Your task to perform on an android device: change the clock display to analog Image 0: 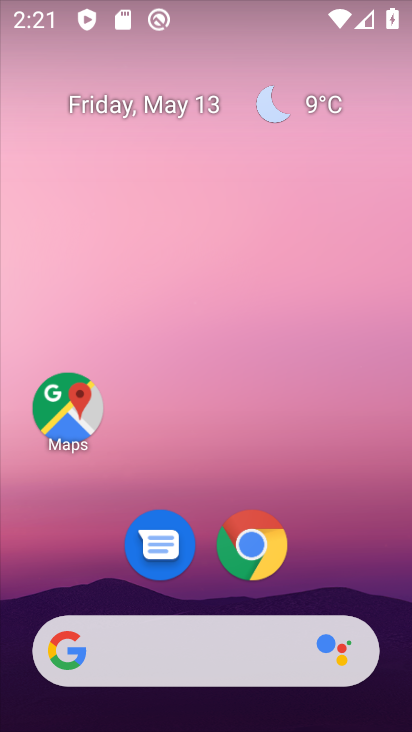
Step 0: drag from (311, 449) to (329, 100)
Your task to perform on an android device: change the clock display to analog Image 1: 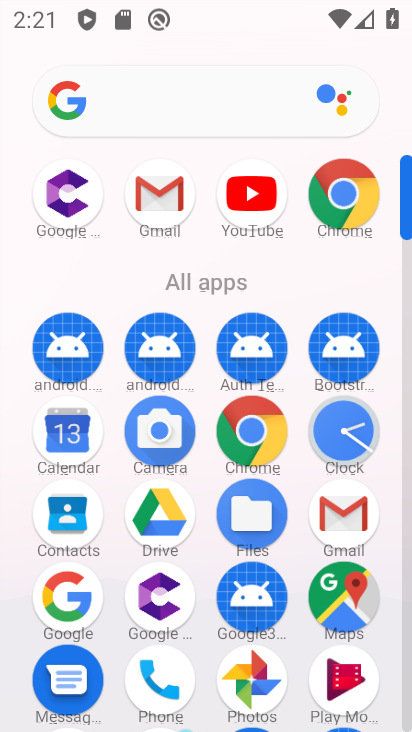
Step 1: click (337, 436)
Your task to perform on an android device: change the clock display to analog Image 2: 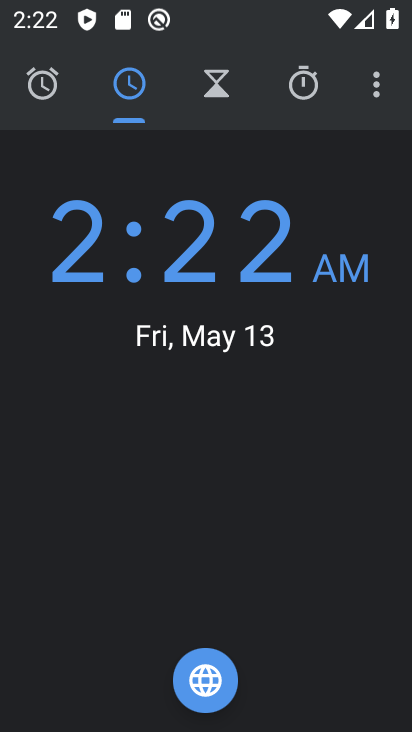
Step 2: click (375, 90)
Your task to perform on an android device: change the clock display to analog Image 3: 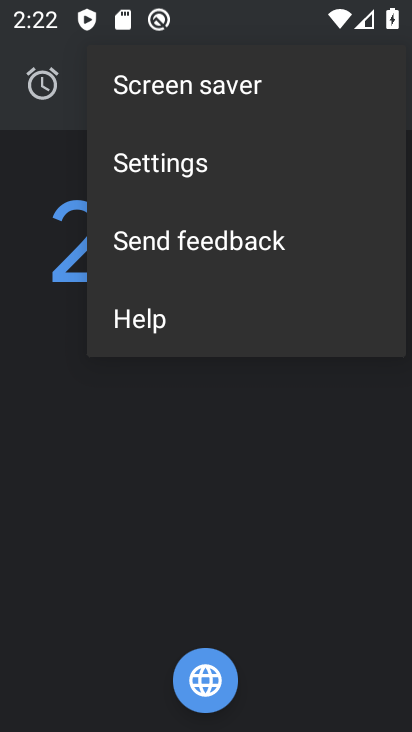
Step 3: click (167, 165)
Your task to perform on an android device: change the clock display to analog Image 4: 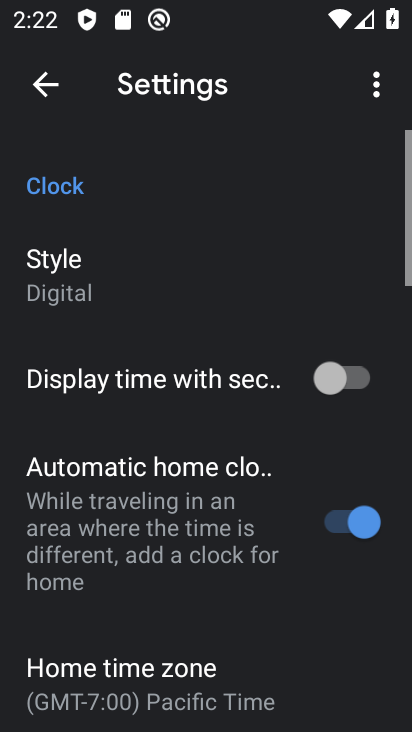
Step 4: click (42, 279)
Your task to perform on an android device: change the clock display to analog Image 5: 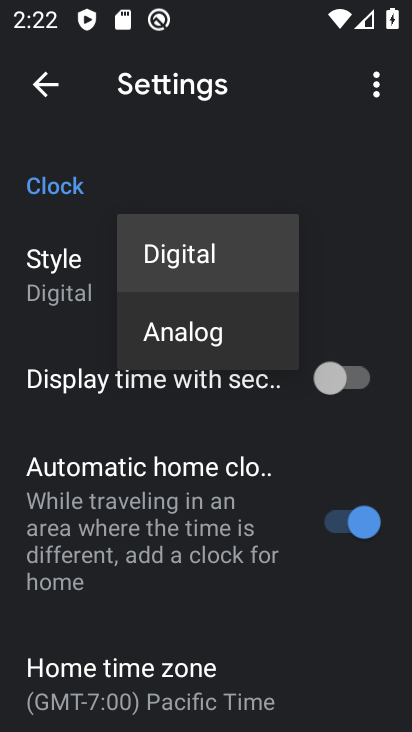
Step 5: click (200, 322)
Your task to perform on an android device: change the clock display to analog Image 6: 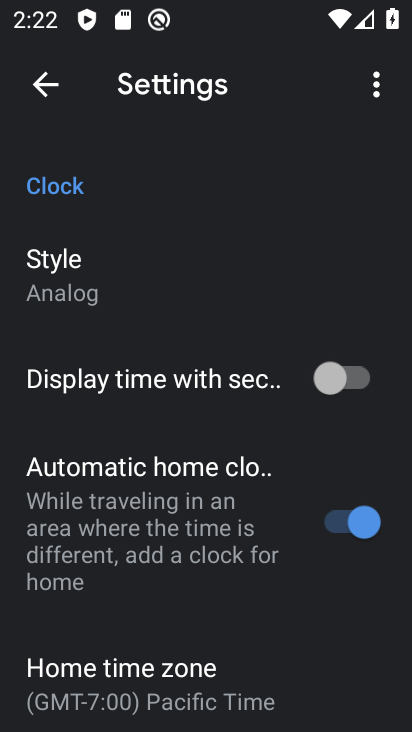
Step 6: task complete